Your task to perform on an android device: remove spam from my inbox in the gmail app Image 0: 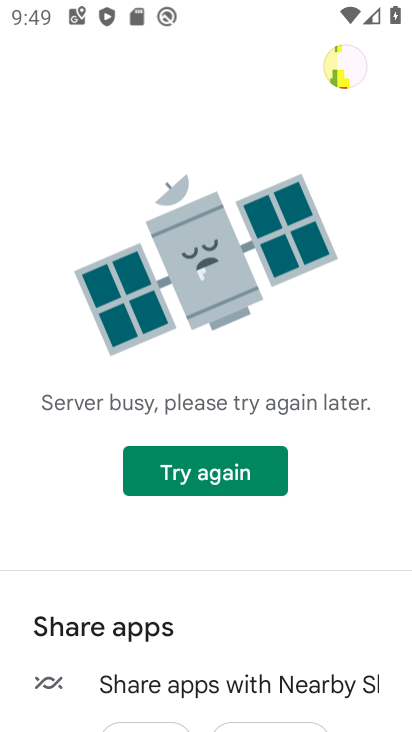
Step 0: press home button
Your task to perform on an android device: remove spam from my inbox in the gmail app Image 1: 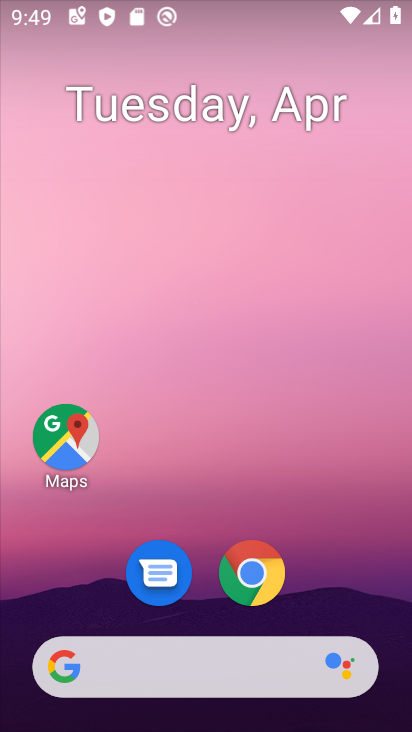
Step 1: drag from (202, 610) to (249, 84)
Your task to perform on an android device: remove spam from my inbox in the gmail app Image 2: 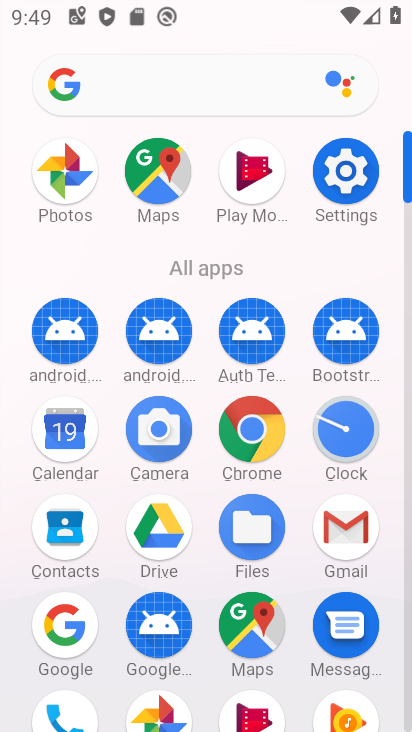
Step 2: click (363, 544)
Your task to perform on an android device: remove spam from my inbox in the gmail app Image 3: 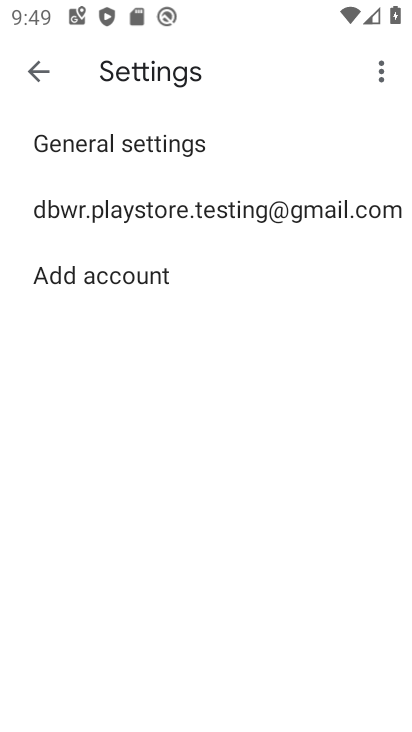
Step 3: click (28, 68)
Your task to perform on an android device: remove spam from my inbox in the gmail app Image 4: 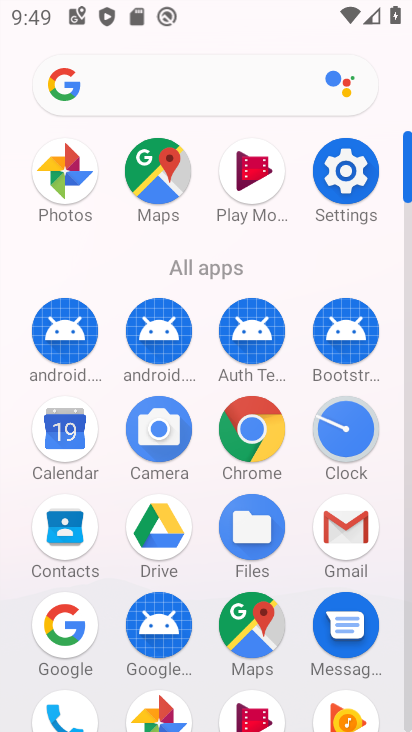
Step 4: click (321, 517)
Your task to perform on an android device: remove spam from my inbox in the gmail app Image 5: 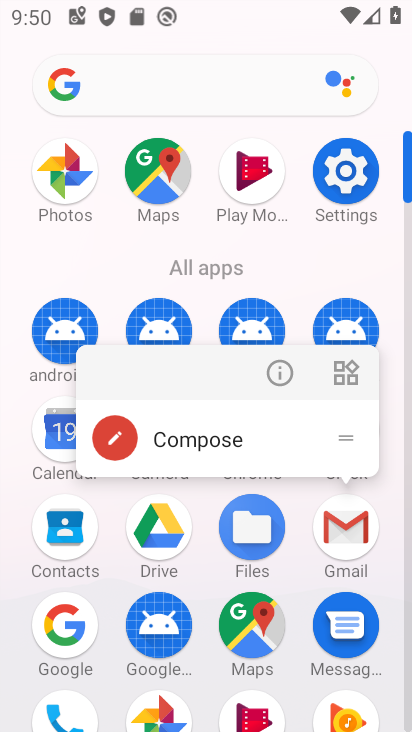
Step 5: click (347, 511)
Your task to perform on an android device: remove spam from my inbox in the gmail app Image 6: 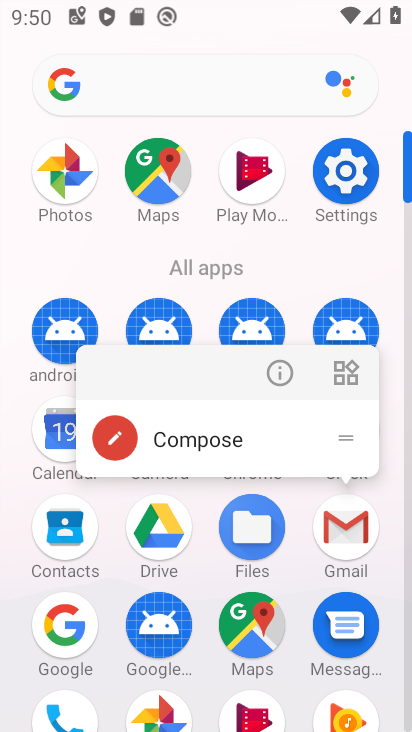
Step 6: click (348, 510)
Your task to perform on an android device: remove spam from my inbox in the gmail app Image 7: 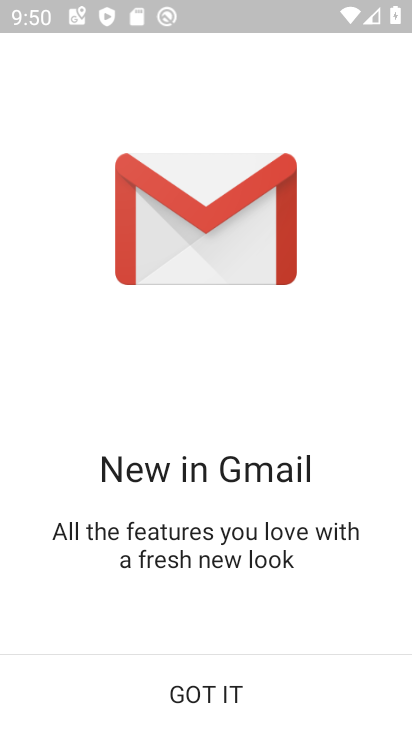
Step 7: click (190, 689)
Your task to perform on an android device: remove spam from my inbox in the gmail app Image 8: 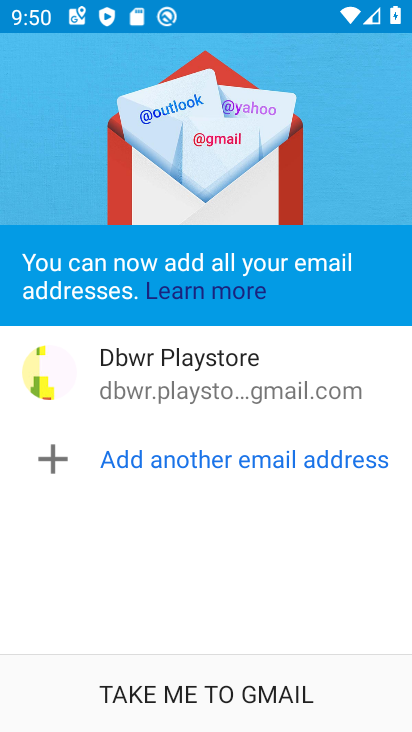
Step 8: click (190, 689)
Your task to perform on an android device: remove spam from my inbox in the gmail app Image 9: 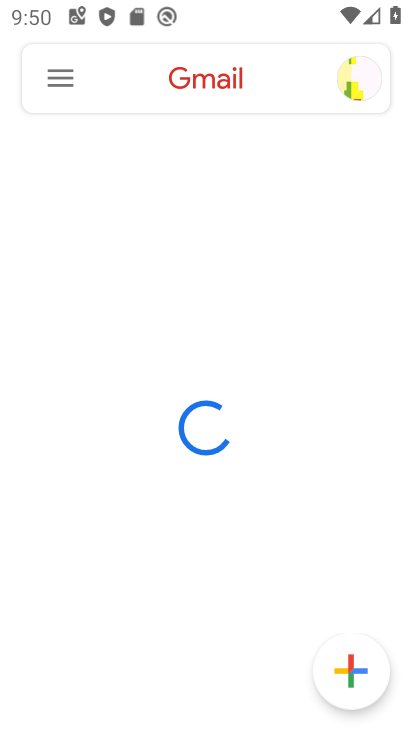
Step 9: click (46, 66)
Your task to perform on an android device: remove spam from my inbox in the gmail app Image 10: 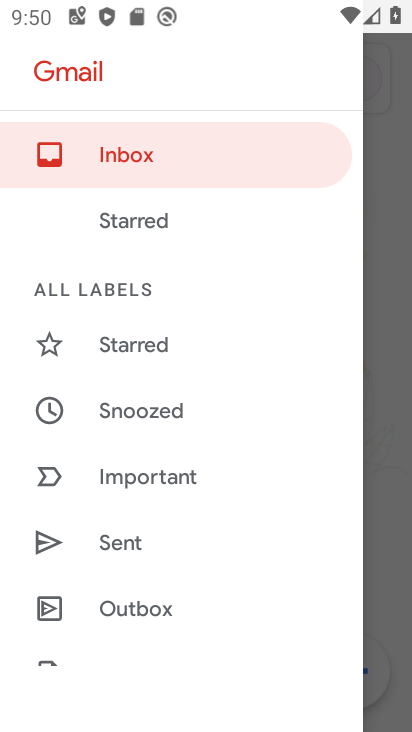
Step 10: drag from (188, 567) to (237, 289)
Your task to perform on an android device: remove spam from my inbox in the gmail app Image 11: 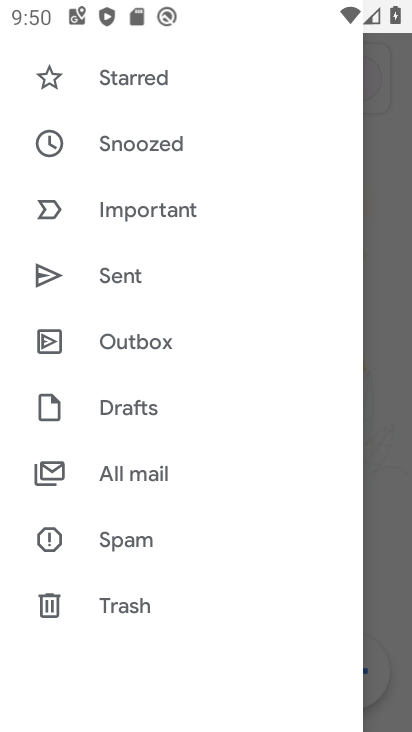
Step 11: click (164, 527)
Your task to perform on an android device: remove spam from my inbox in the gmail app Image 12: 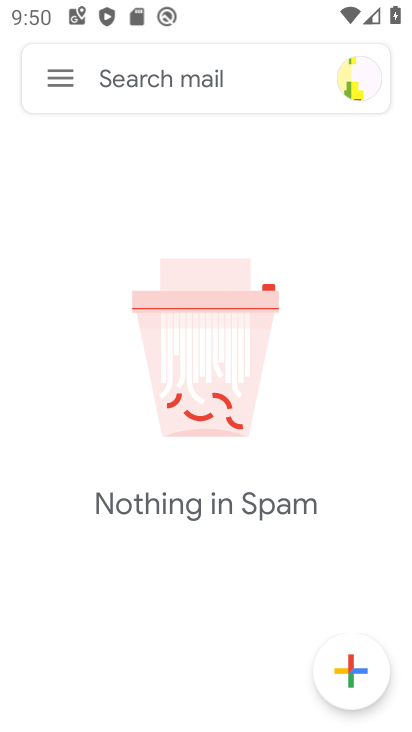
Step 12: task complete